Your task to perform on an android device: Play the last video I watched on Youtube Image 0: 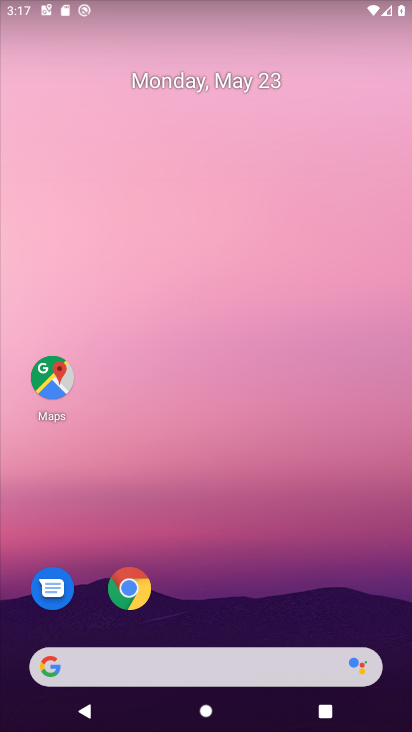
Step 0: drag from (201, 571) to (298, 22)
Your task to perform on an android device: Play the last video I watched on Youtube Image 1: 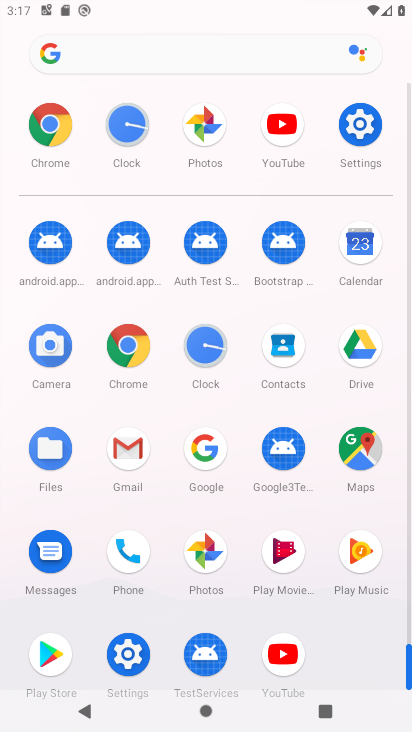
Step 1: click (279, 642)
Your task to perform on an android device: Play the last video I watched on Youtube Image 2: 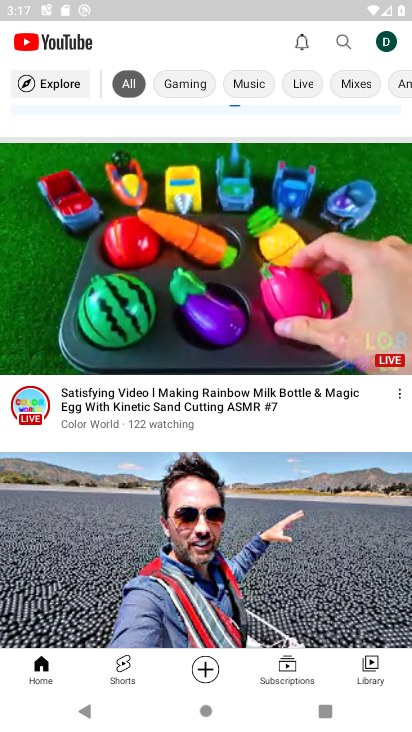
Step 2: drag from (315, 484) to (389, 68)
Your task to perform on an android device: Play the last video I watched on Youtube Image 3: 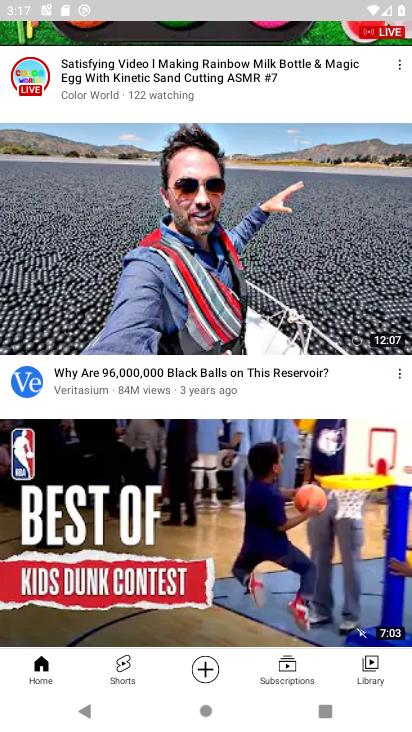
Step 3: click (362, 671)
Your task to perform on an android device: Play the last video I watched on Youtube Image 4: 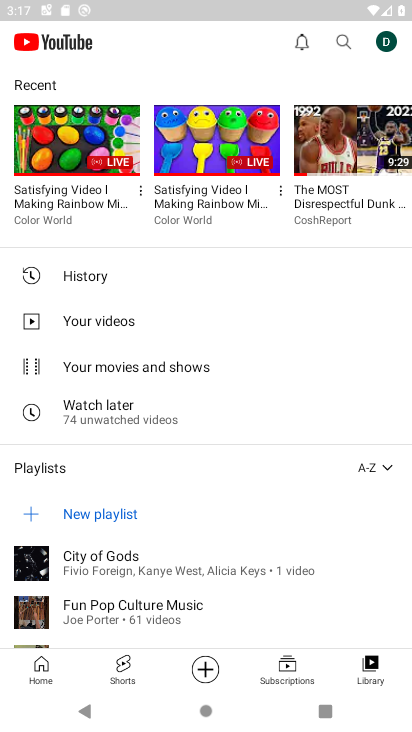
Step 4: click (75, 166)
Your task to perform on an android device: Play the last video I watched on Youtube Image 5: 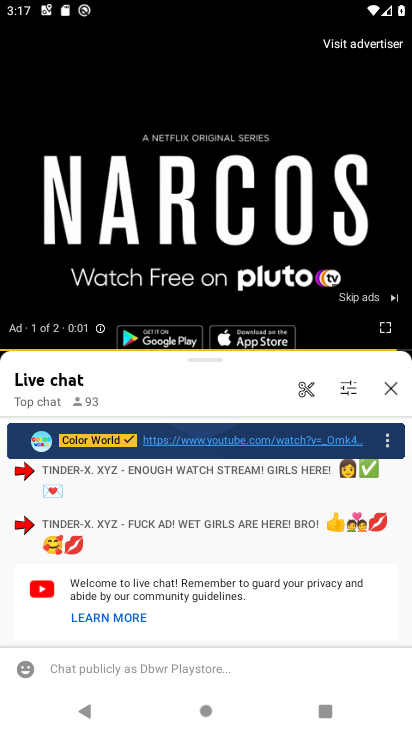
Step 5: drag from (249, 623) to (315, 127)
Your task to perform on an android device: Play the last video I watched on Youtube Image 6: 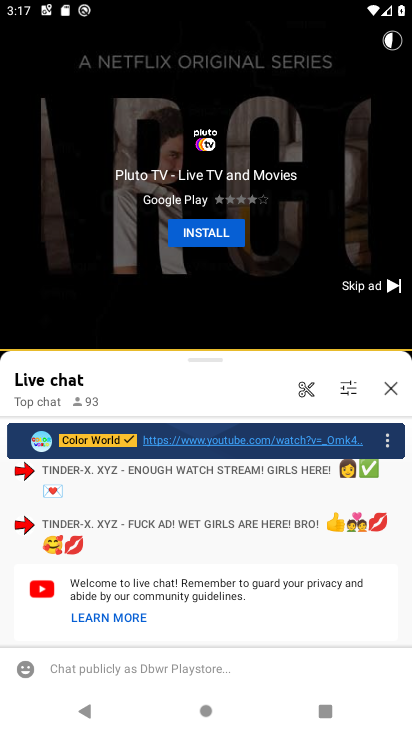
Step 6: click (359, 284)
Your task to perform on an android device: Play the last video I watched on Youtube Image 7: 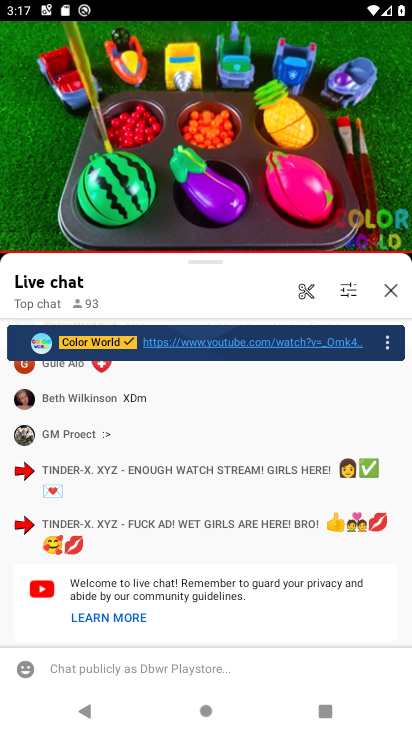
Step 7: task complete